Your task to perform on an android device: turn on the 12-hour format for clock Image 0: 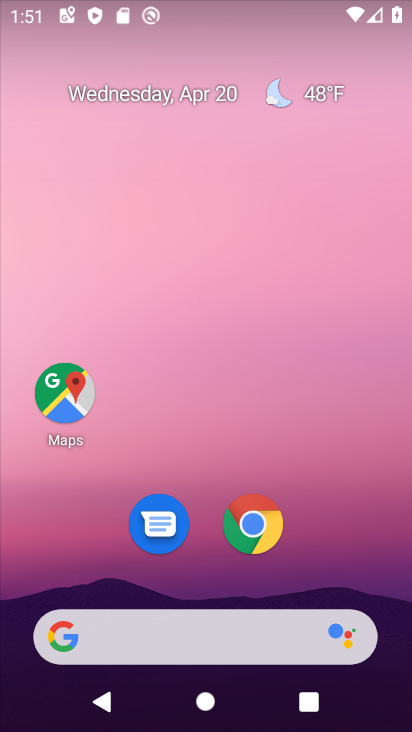
Step 0: drag from (310, 536) to (355, 65)
Your task to perform on an android device: turn on the 12-hour format for clock Image 1: 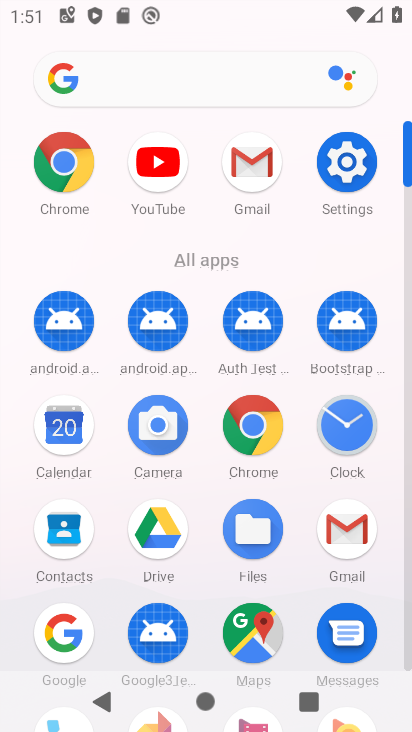
Step 1: click (330, 425)
Your task to perform on an android device: turn on the 12-hour format for clock Image 2: 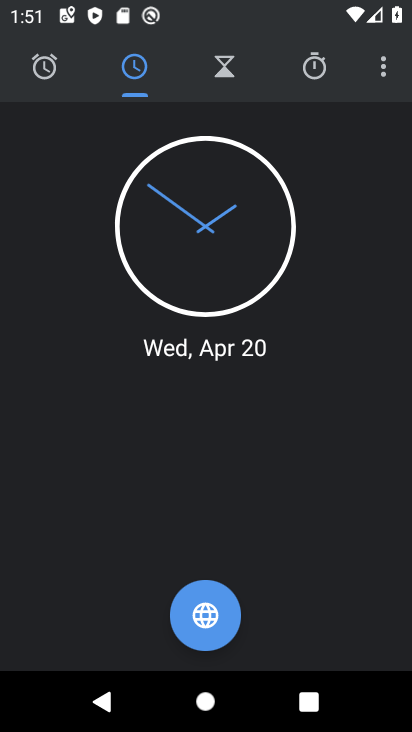
Step 2: click (383, 66)
Your task to perform on an android device: turn on the 12-hour format for clock Image 3: 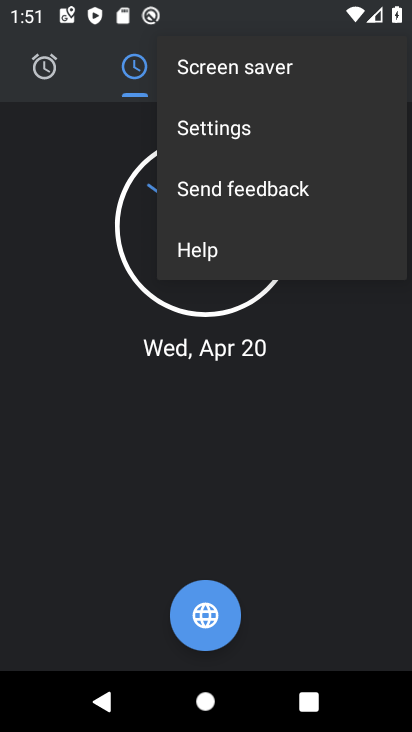
Step 3: click (333, 129)
Your task to perform on an android device: turn on the 12-hour format for clock Image 4: 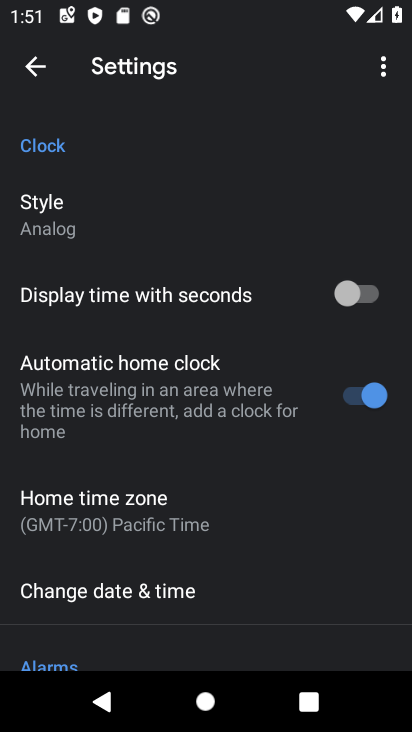
Step 4: click (262, 590)
Your task to perform on an android device: turn on the 12-hour format for clock Image 5: 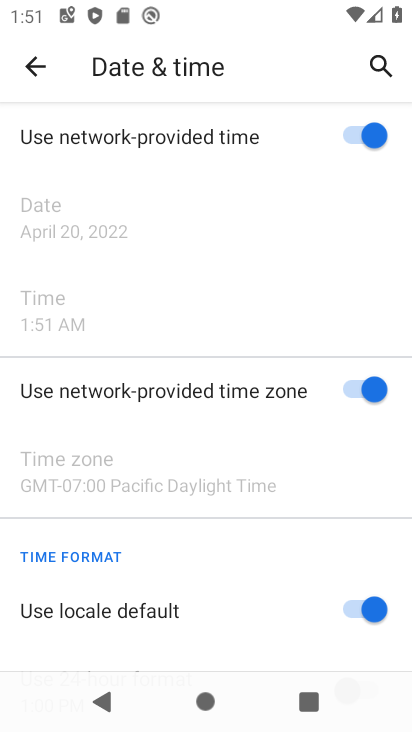
Step 5: task complete